Your task to perform on an android device: turn on showing notifications on the lock screen Image 0: 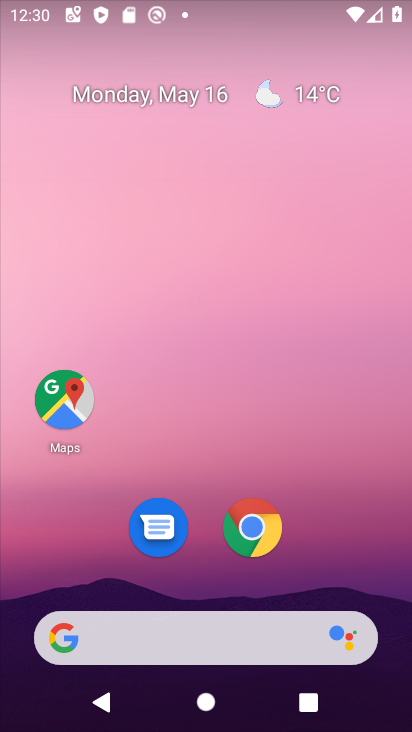
Step 0: drag from (314, 586) to (334, 0)
Your task to perform on an android device: turn on showing notifications on the lock screen Image 1: 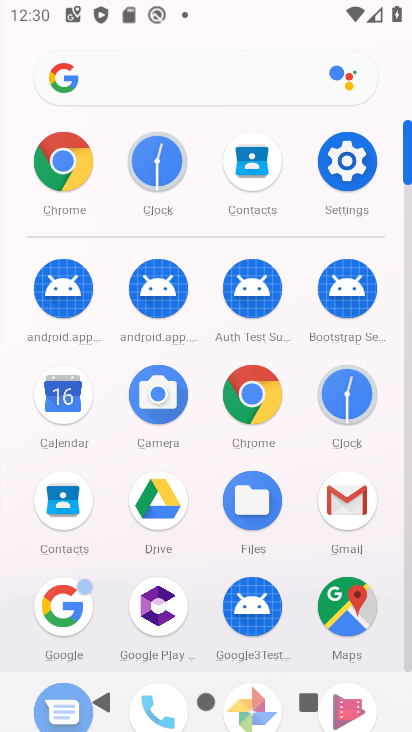
Step 1: drag from (197, 616) to (212, 311)
Your task to perform on an android device: turn on showing notifications on the lock screen Image 2: 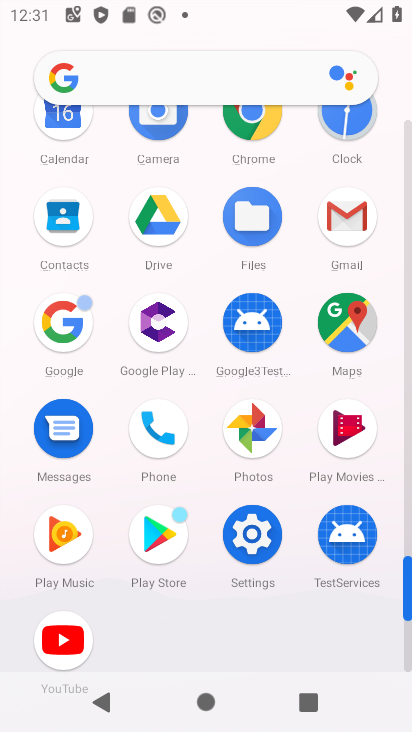
Step 2: click (244, 553)
Your task to perform on an android device: turn on showing notifications on the lock screen Image 3: 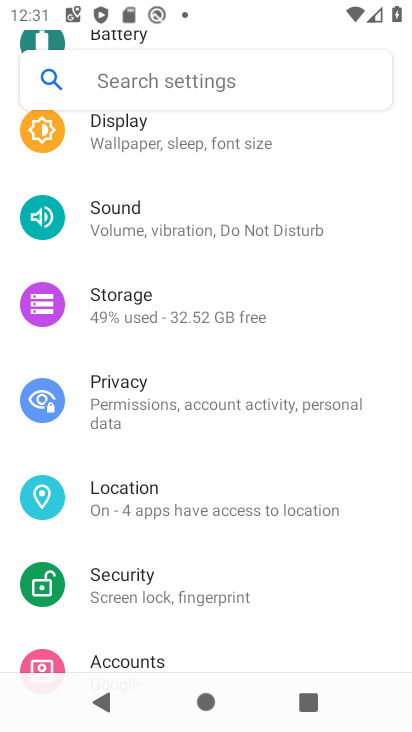
Step 3: drag from (157, 250) to (171, 536)
Your task to perform on an android device: turn on showing notifications on the lock screen Image 4: 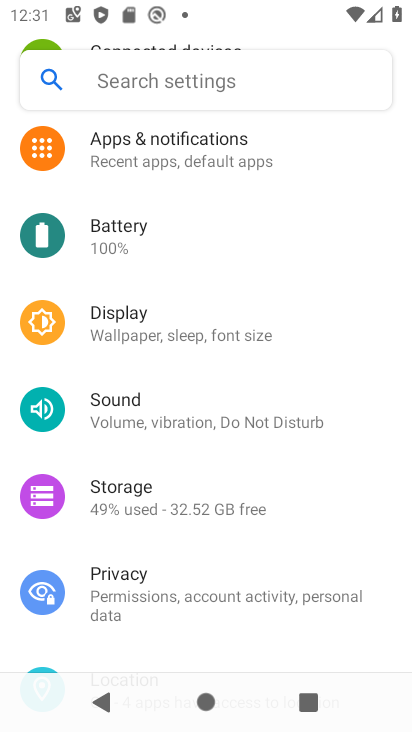
Step 4: click (149, 164)
Your task to perform on an android device: turn on showing notifications on the lock screen Image 5: 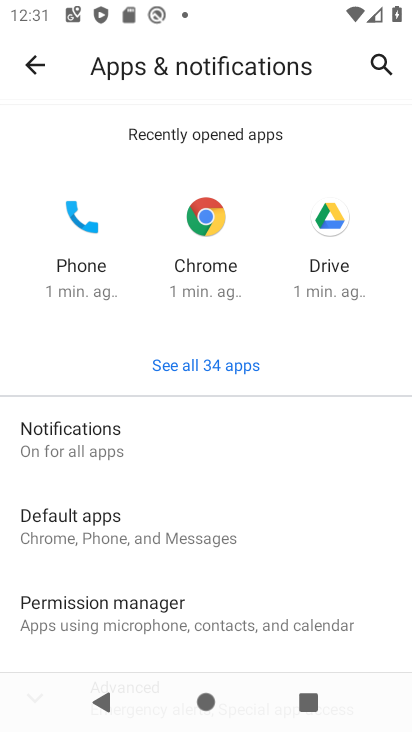
Step 5: click (75, 448)
Your task to perform on an android device: turn on showing notifications on the lock screen Image 6: 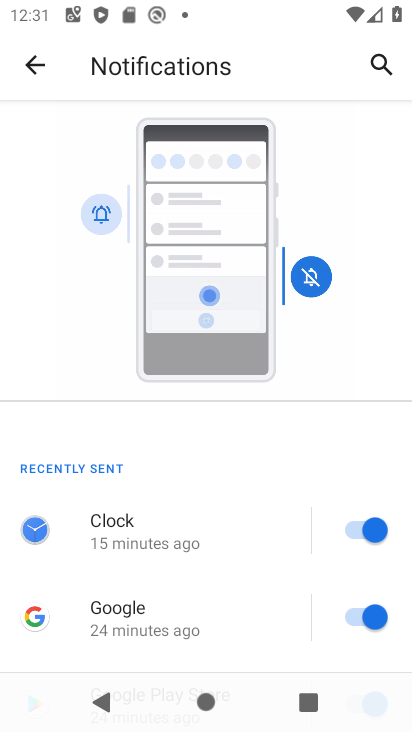
Step 6: task complete